Your task to perform on an android device: Turn on the flashlight Image 0: 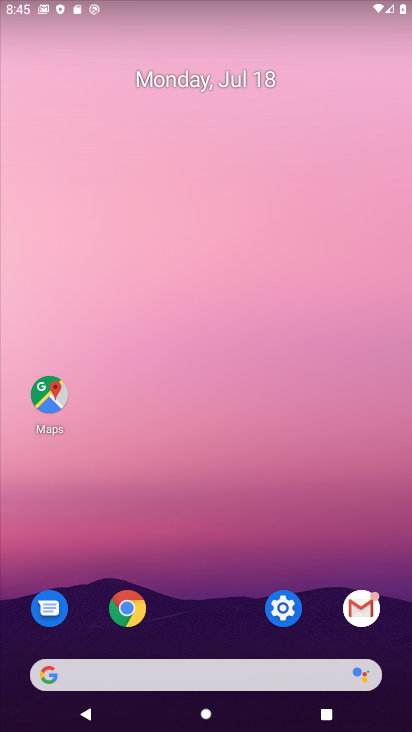
Step 0: click (278, 610)
Your task to perform on an android device: Turn on the flashlight Image 1: 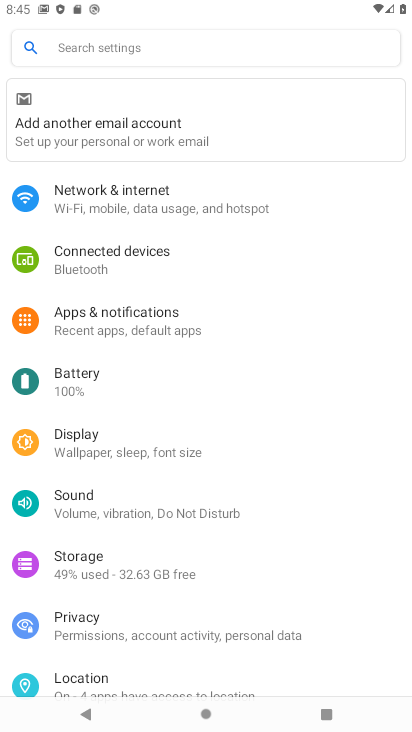
Step 1: click (95, 51)
Your task to perform on an android device: Turn on the flashlight Image 2: 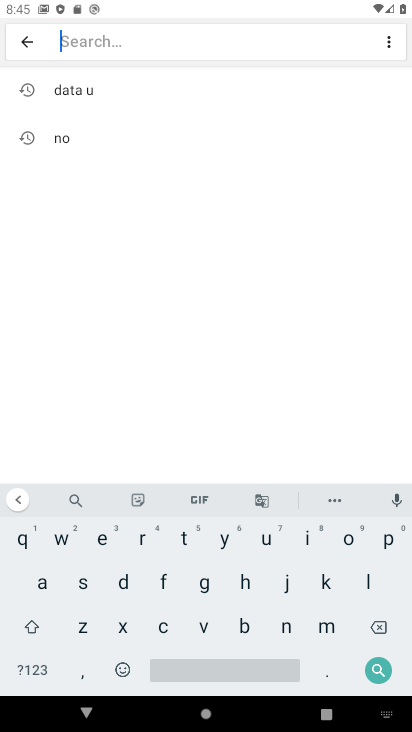
Step 2: click (374, 588)
Your task to perform on an android device: Turn on the flashlight Image 3: 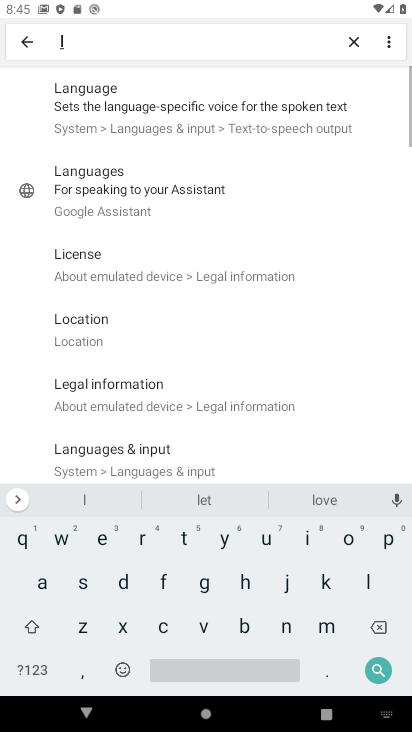
Step 3: click (381, 623)
Your task to perform on an android device: Turn on the flashlight Image 4: 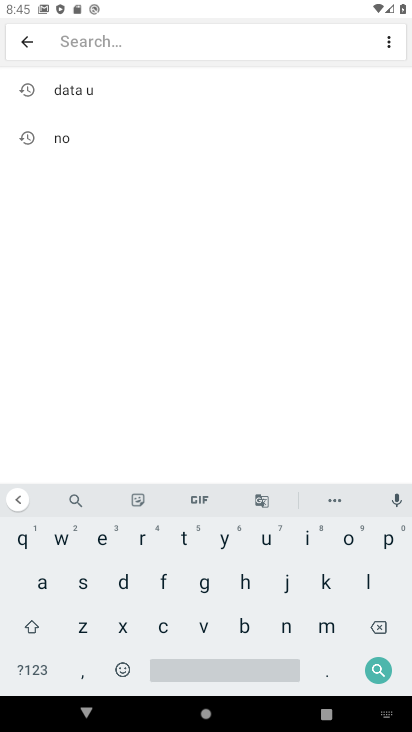
Step 4: click (165, 580)
Your task to perform on an android device: Turn on the flashlight Image 5: 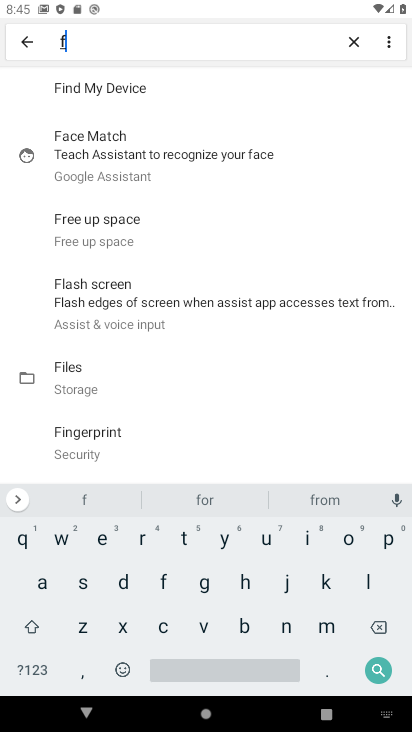
Step 5: click (367, 581)
Your task to perform on an android device: Turn on the flashlight Image 6: 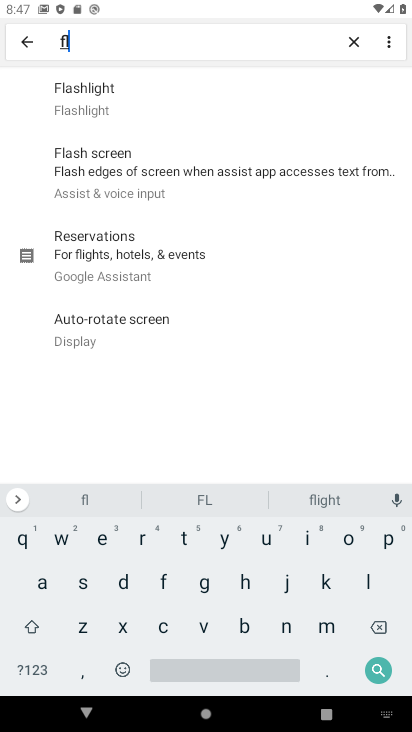
Step 6: click (220, 115)
Your task to perform on an android device: Turn on the flashlight Image 7: 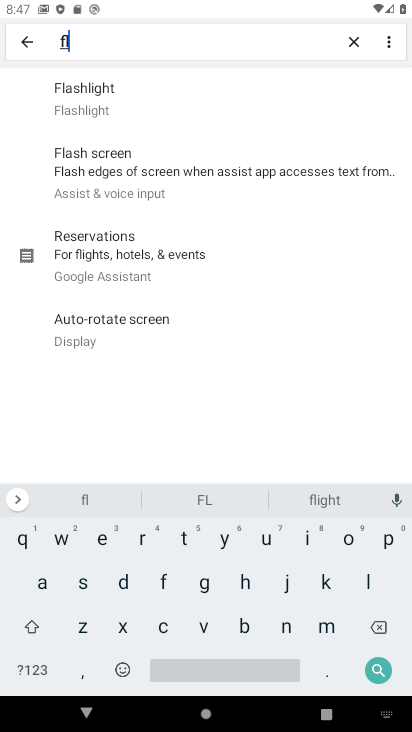
Step 7: task complete